Your task to perform on an android device: turn off translation in the chrome app Image 0: 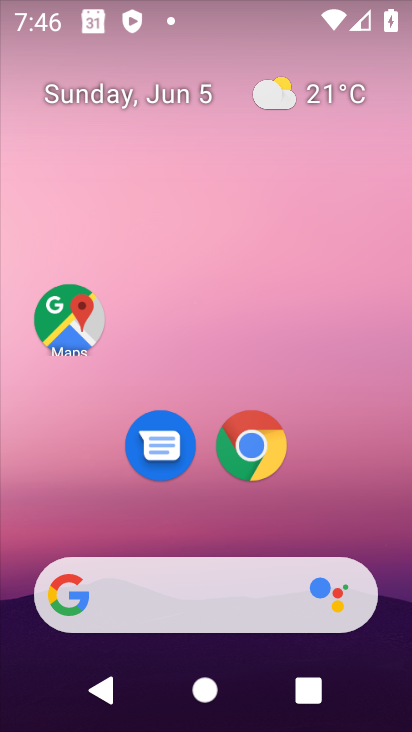
Step 0: click (234, 438)
Your task to perform on an android device: turn off translation in the chrome app Image 1: 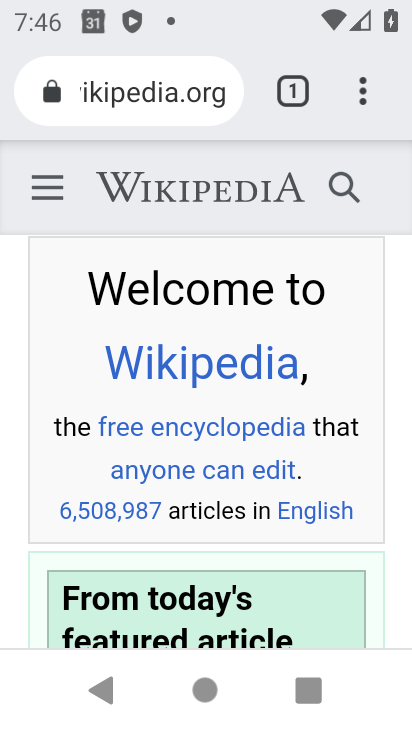
Step 1: drag from (362, 82) to (223, 467)
Your task to perform on an android device: turn off translation in the chrome app Image 2: 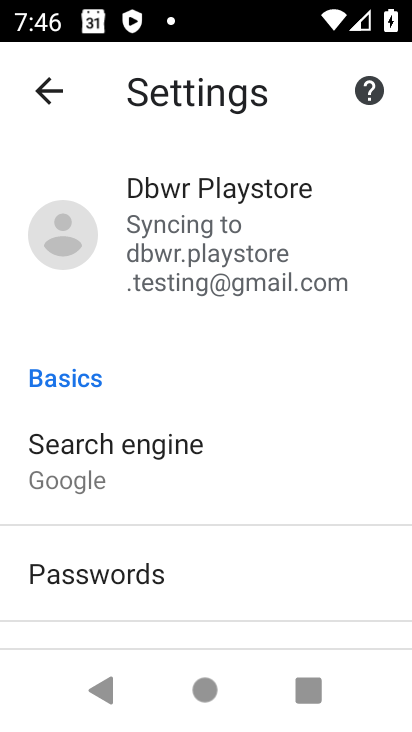
Step 2: drag from (357, 486) to (350, 121)
Your task to perform on an android device: turn off translation in the chrome app Image 3: 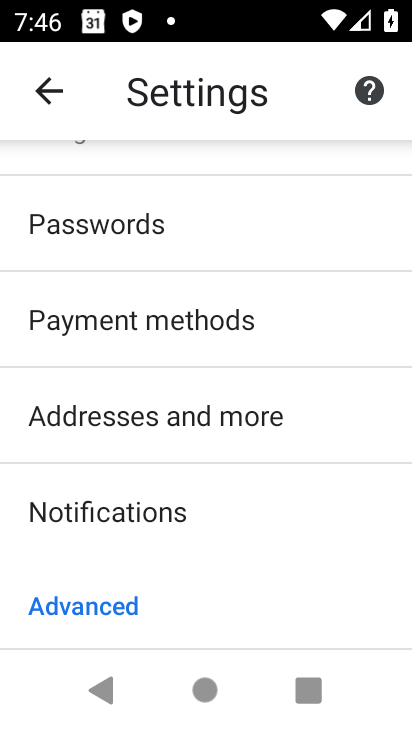
Step 3: drag from (256, 606) to (283, 295)
Your task to perform on an android device: turn off translation in the chrome app Image 4: 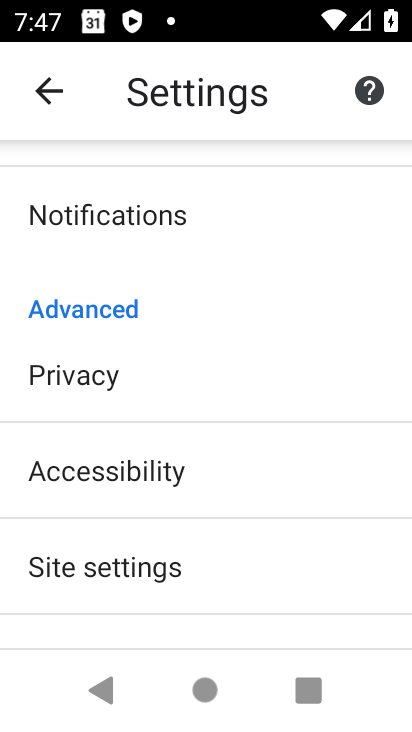
Step 4: drag from (272, 303) to (287, 85)
Your task to perform on an android device: turn off translation in the chrome app Image 5: 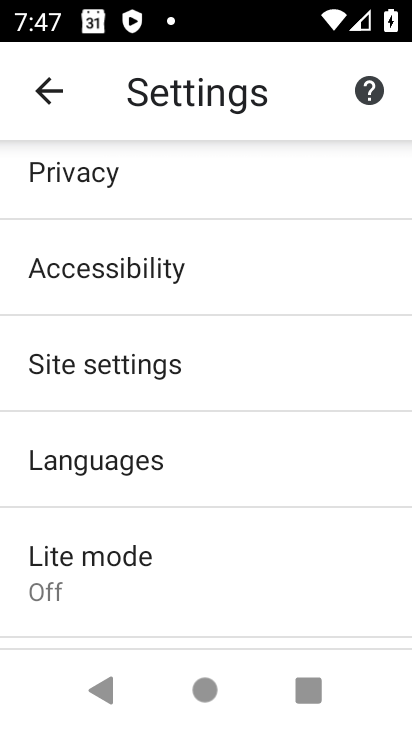
Step 5: click (129, 474)
Your task to perform on an android device: turn off translation in the chrome app Image 6: 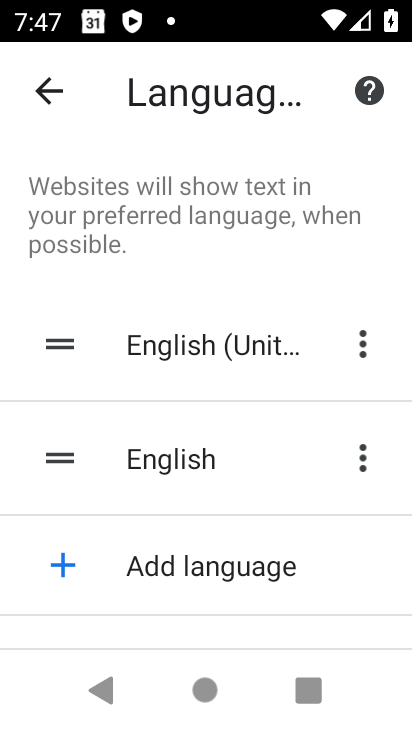
Step 6: drag from (362, 524) to (381, 233)
Your task to perform on an android device: turn off translation in the chrome app Image 7: 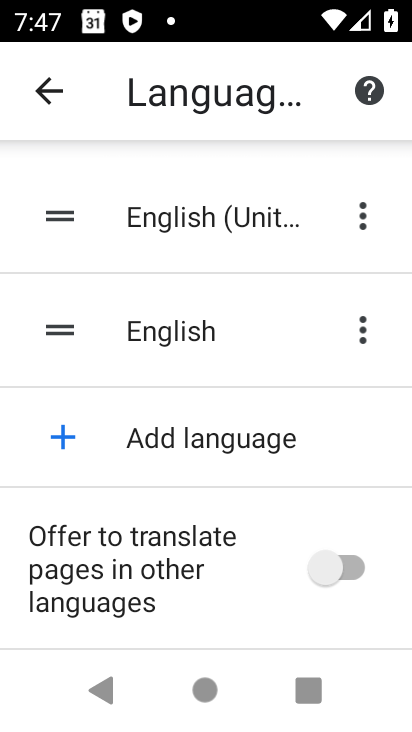
Step 7: click (360, 557)
Your task to perform on an android device: turn off translation in the chrome app Image 8: 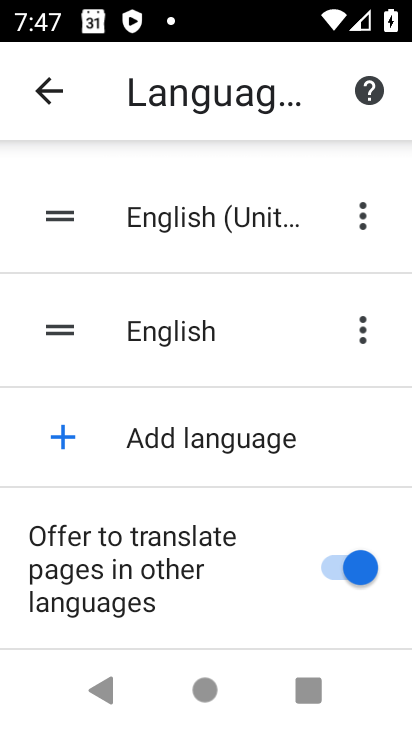
Step 8: click (361, 564)
Your task to perform on an android device: turn off translation in the chrome app Image 9: 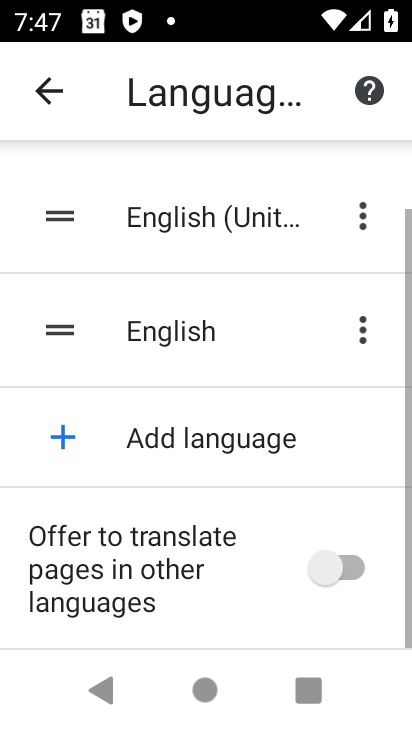
Step 9: task complete